Your task to perform on an android device: Open Youtube and go to the subscriptions tab Image 0: 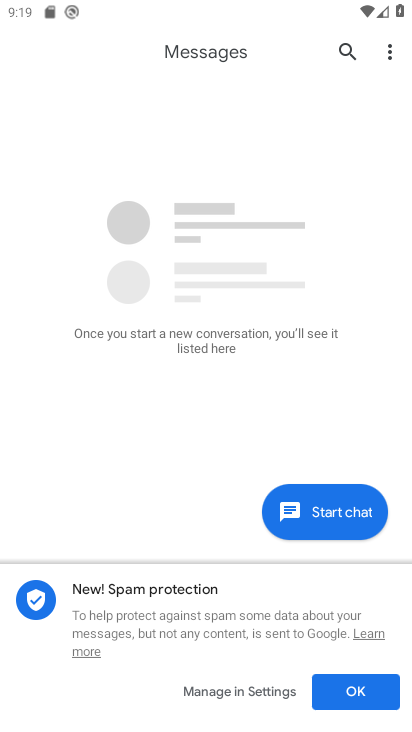
Step 0: press home button
Your task to perform on an android device: Open Youtube and go to the subscriptions tab Image 1: 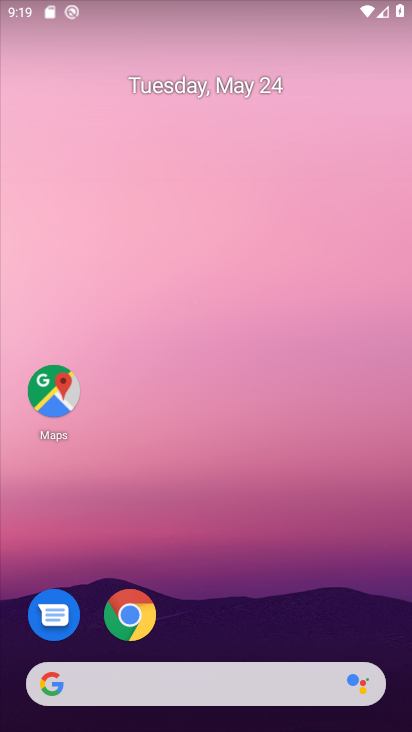
Step 1: drag from (375, 619) to (358, 255)
Your task to perform on an android device: Open Youtube and go to the subscriptions tab Image 2: 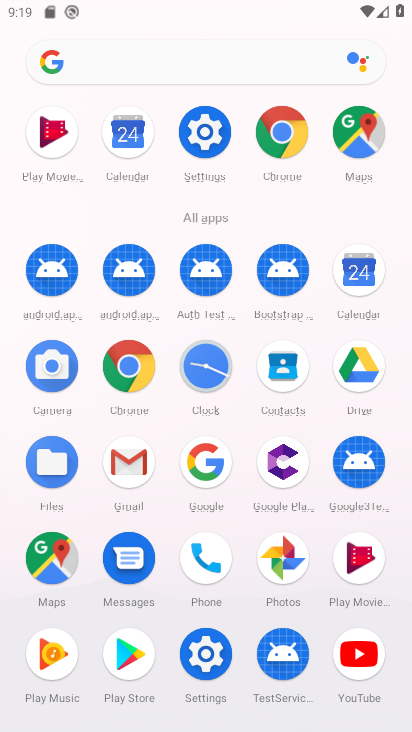
Step 2: click (360, 662)
Your task to perform on an android device: Open Youtube and go to the subscriptions tab Image 3: 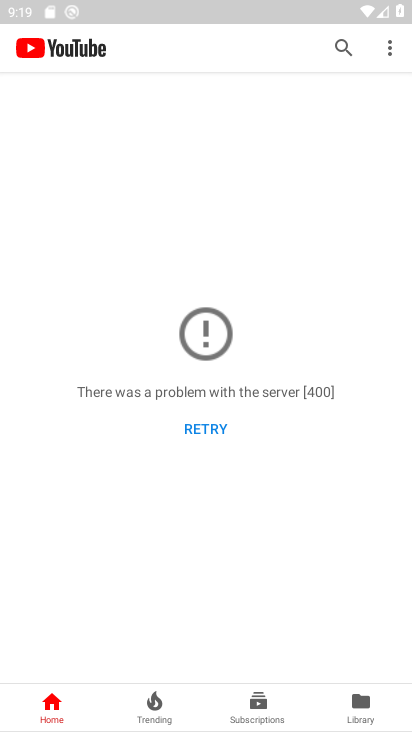
Step 3: click (248, 710)
Your task to perform on an android device: Open Youtube and go to the subscriptions tab Image 4: 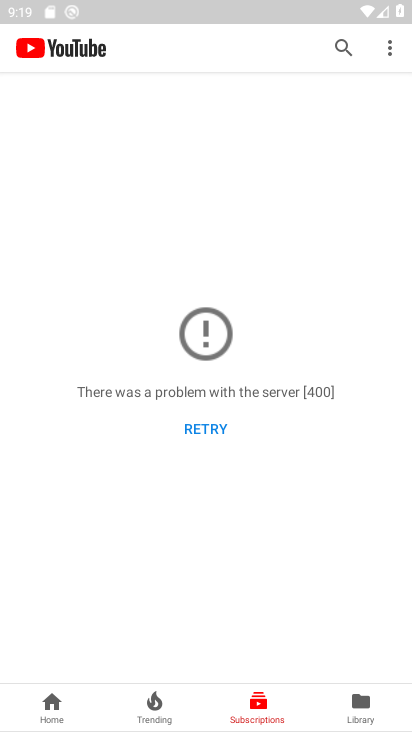
Step 4: task complete